Your task to perform on an android device: turn notification dots off Image 0: 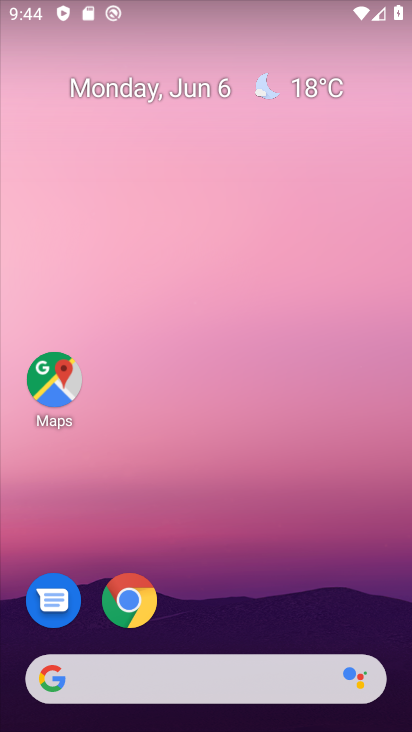
Step 0: drag from (266, 563) to (156, 26)
Your task to perform on an android device: turn notification dots off Image 1: 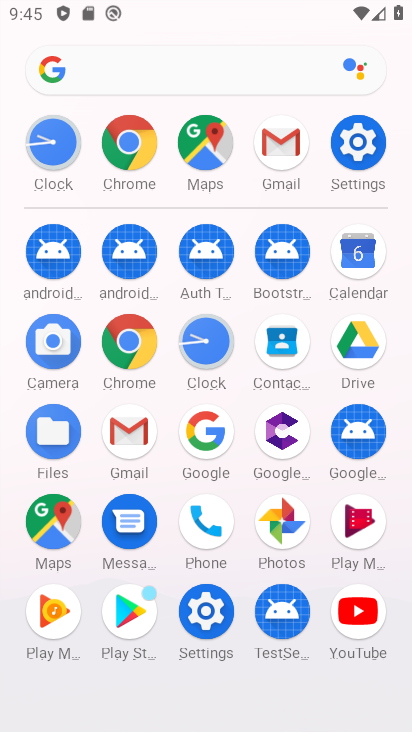
Step 1: drag from (18, 554) to (10, 236)
Your task to perform on an android device: turn notification dots off Image 2: 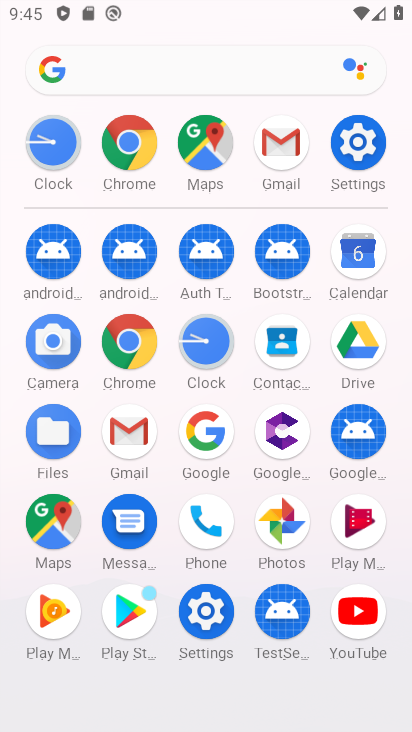
Step 2: click (207, 608)
Your task to perform on an android device: turn notification dots off Image 3: 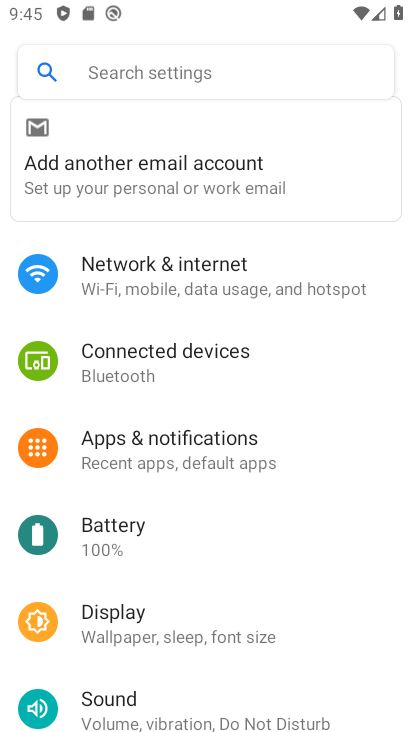
Step 3: click (319, 293)
Your task to perform on an android device: turn notification dots off Image 4: 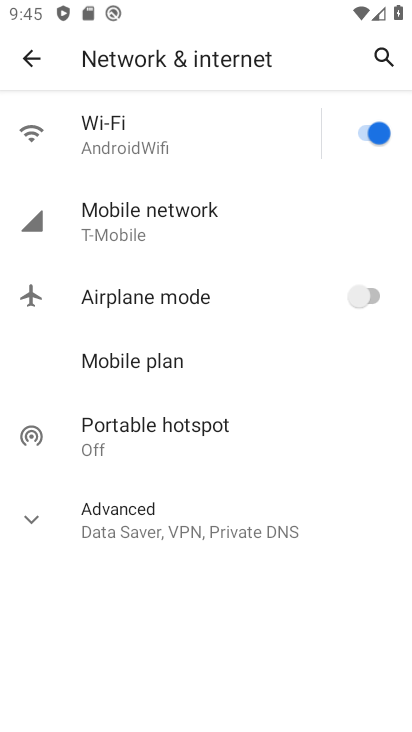
Step 4: click (29, 62)
Your task to perform on an android device: turn notification dots off Image 5: 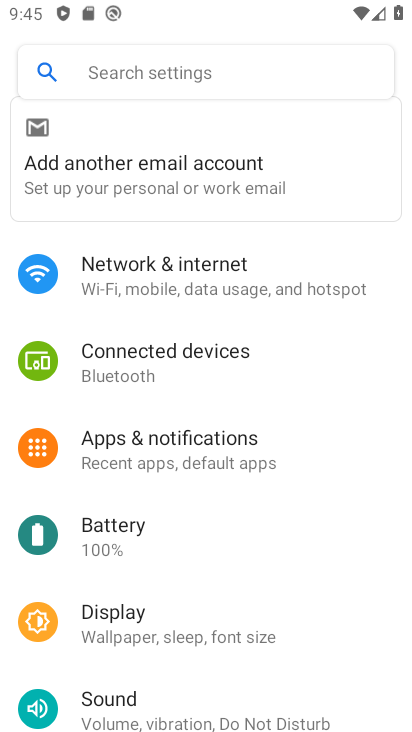
Step 5: click (216, 444)
Your task to perform on an android device: turn notification dots off Image 6: 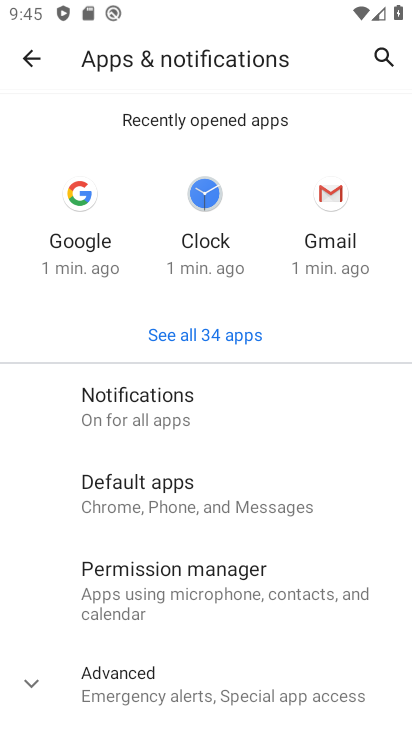
Step 6: click (187, 414)
Your task to perform on an android device: turn notification dots off Image 7: 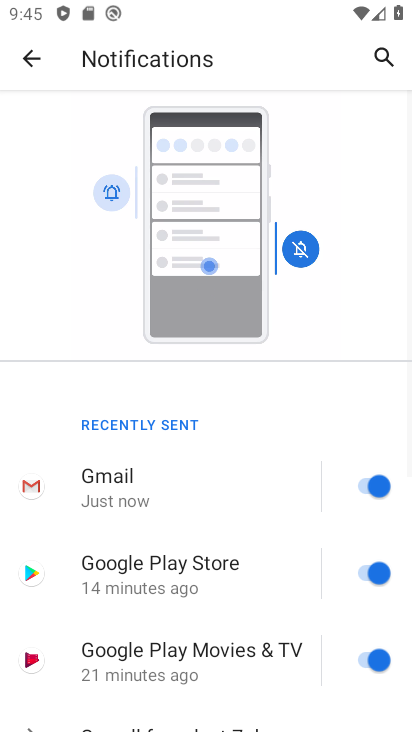
Step 7: drag from (256, 537) to (282, 87)
Your task to perform on an android device: turn notification dots off Image 8: 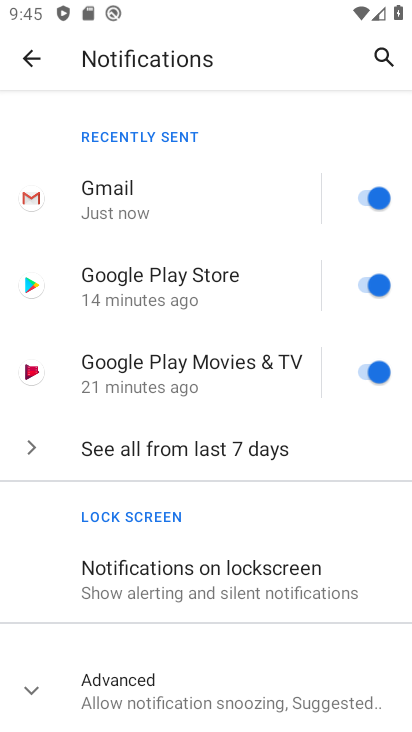
Step 8: click (51, 685)
Your task to perform on an android device: turn notification dots off Image 9: 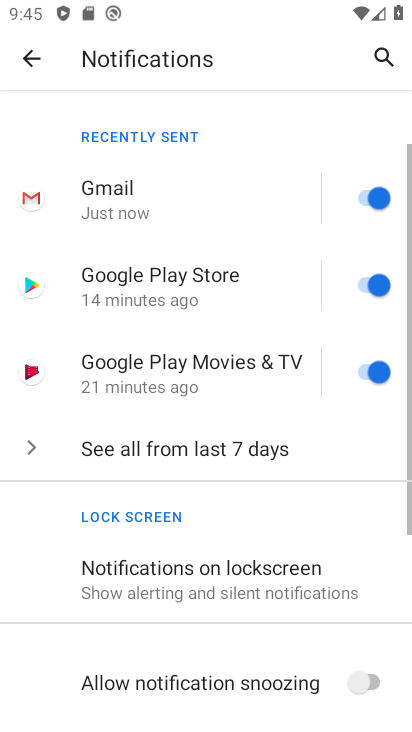
Step 9: drag from (239, 663) to (267, 153)
Your task to perform on an android device: turn notification dots off Image 10: 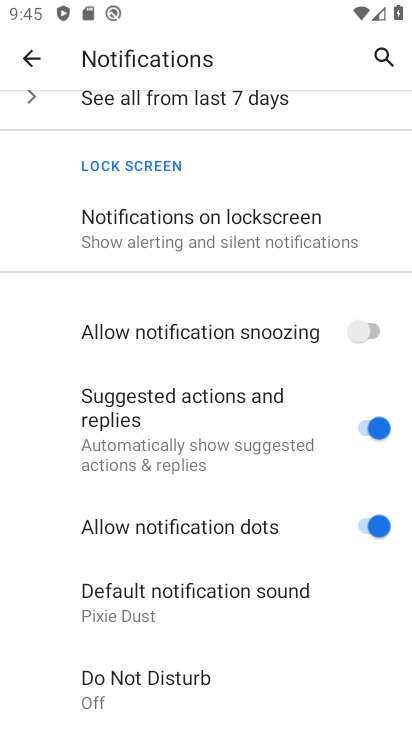
Step 10: click (375, 526)
Your task to perform on an android device: turn notification dots off Image 11: 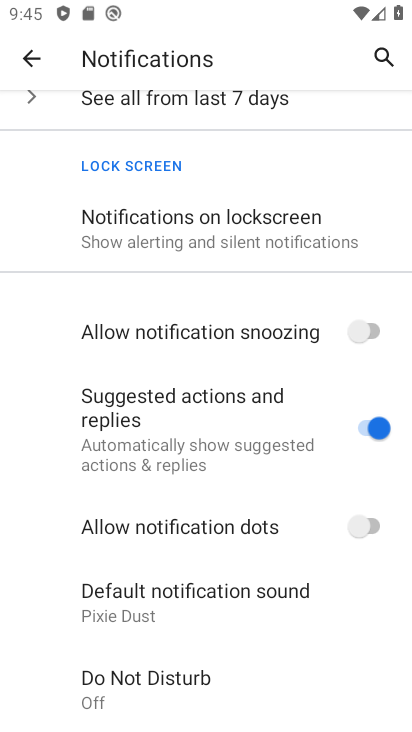
Step 11: task complete